Your task to perform on an android device: read, delete, or share a saved page in the chrome app Image 0: 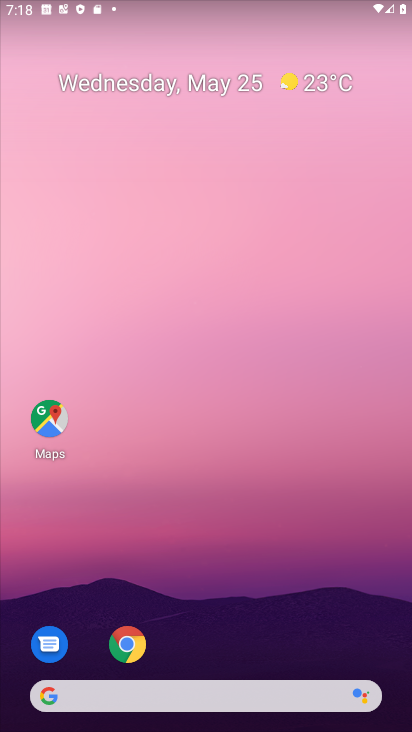
Step 0: press home button
Your task to perform on an android device: read, delete, or share a saved page in the chrome app Image 1: 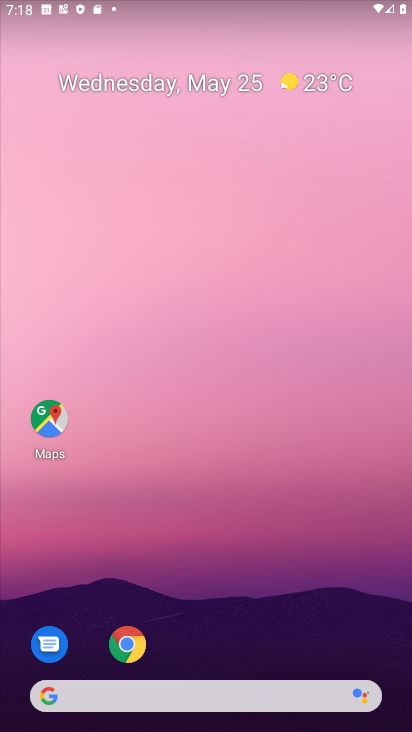
Step 1: drag from (273, 719) to (290, 160)
Your task to perform on an android device: read, delete, or share a saved page in the chrome app Image 2: 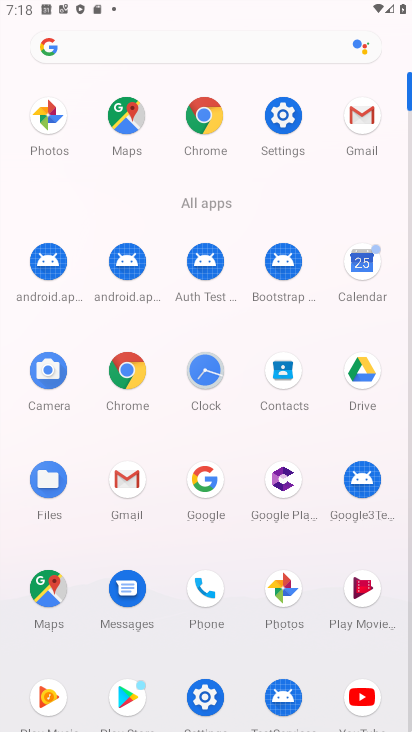
Step 2: click (200, 125)
Your task to perform on an android device: read, delete, or share a saved page in the chrome app Image 3: 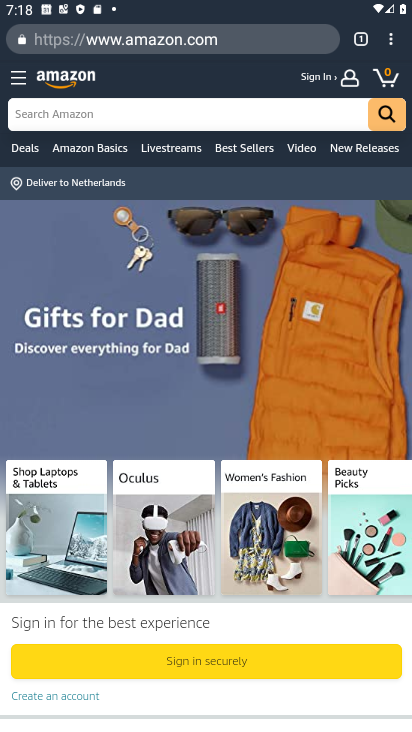
Step 3: click (384, 53)
Your task to perform on an android device: read, delete, or share a saved page in the chrome app Image 4: 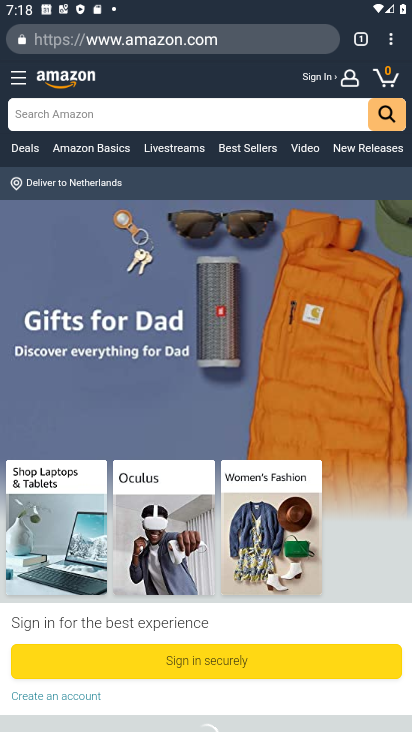
Step 4: click (392, 48)
Your task to perform on an android device: read, delete, or share a saved page in the chrome app Image 5: 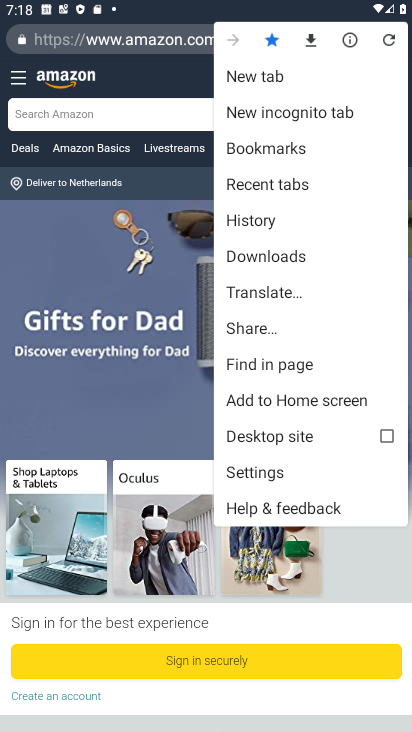
Step 5: click (273, 324)
Your task to perform on an android device: read, delete, or share a saved page in the chrome app Image 6: 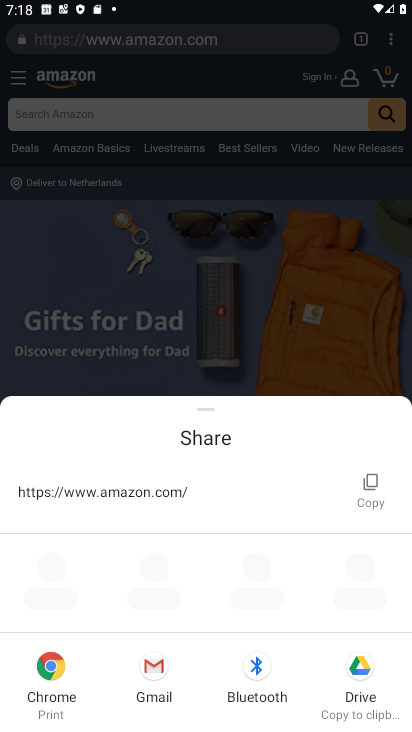
Step 6: task complete